Your task to perform on an android device: open chrome and create a bookmark for the current page Image 0: 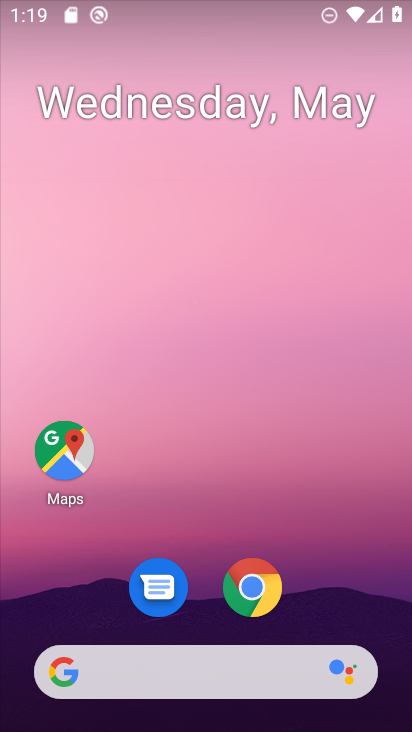
Step 0: click (264, 576)
Your task to perform on an android device: open chrome and create a bookmark for the current page Image 1: 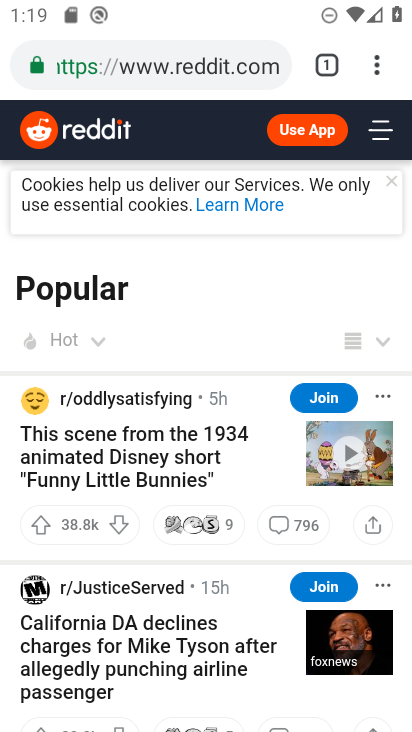
Step 1: click (382, 70)
Your task to perform on an android device: open chrome and create a bookmark for the current page Image 2: 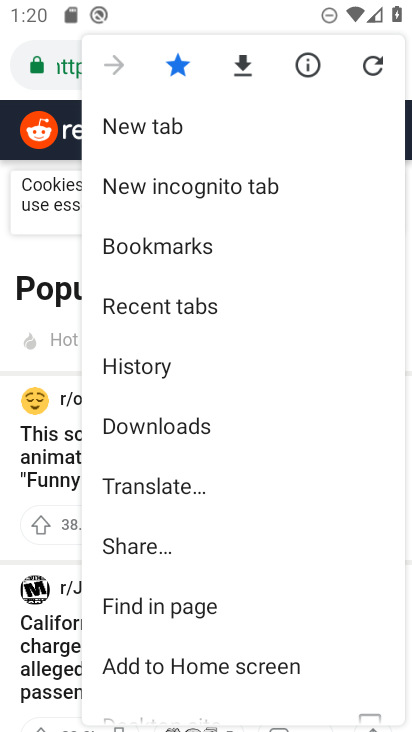
Step 2: task complete